Your task to perform on an android device: check data usage Image 0: 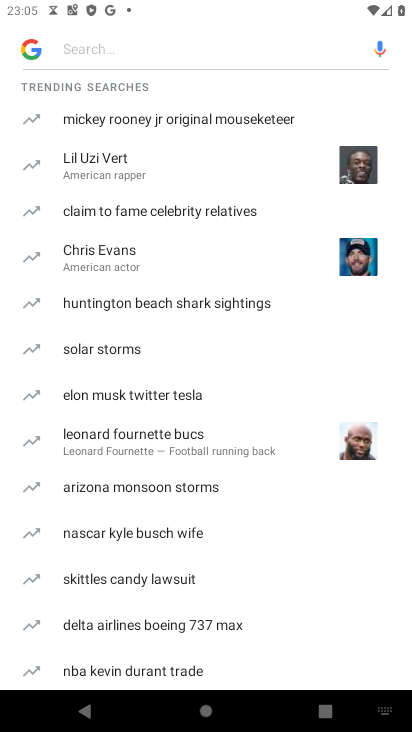
Step 0: press home button
Your task to perform on an android device: check data usage Image 1: 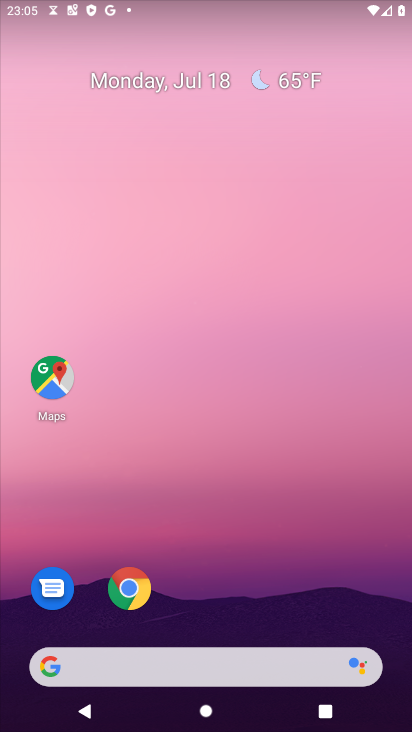
Step 1: drag from (187, 669) to (292, 69)
Your task to perform on an android device: check data usage Image 2: 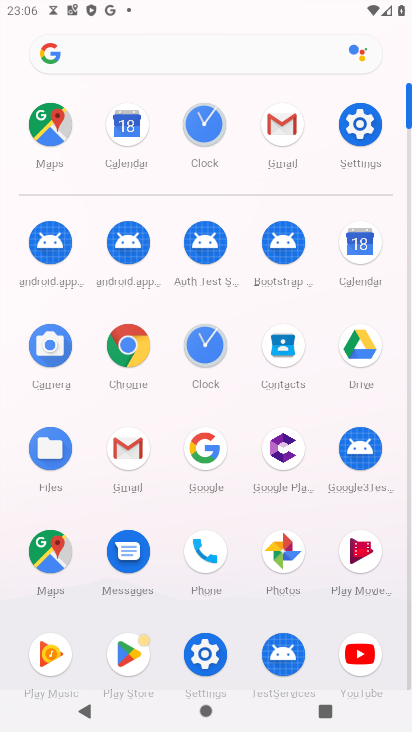
Step 2: click (362, 125)
Your task to perform on an android device: check data usage Image 3: 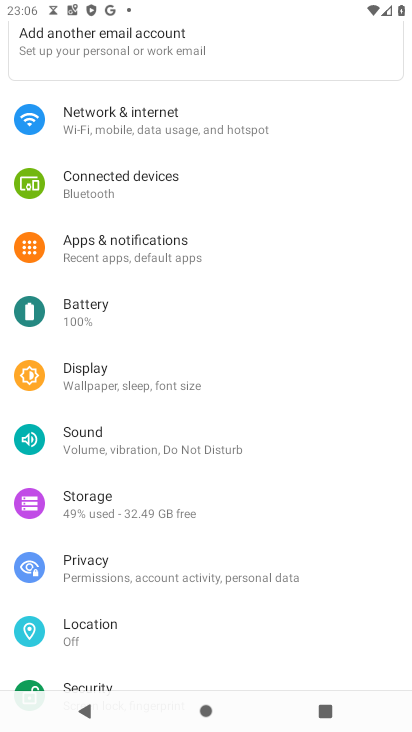
Step 3: click (182, 140)
Your task to perform on an android device: check data usage Image 4: 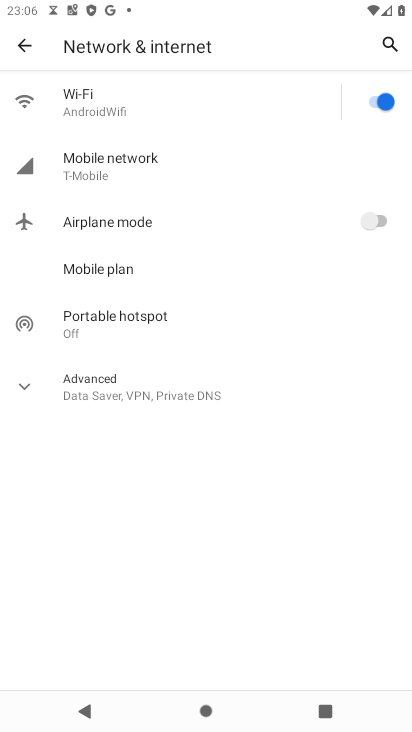
Step 4: click (123, 158)
Your task to perform on an android device: check data usage Image 5: 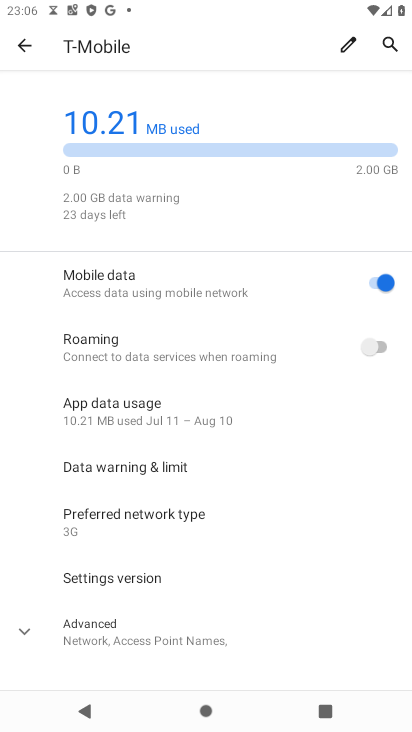
Step 5: task complete